Your task to perform on an android device: open app "Google News" Image 0: 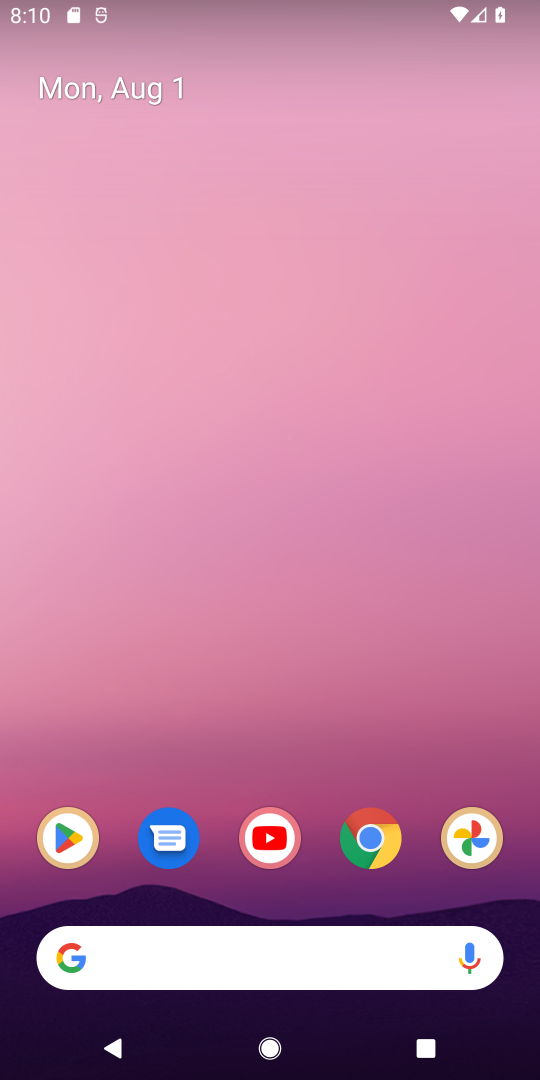
Step 0: press home button
Your task to perform on an android device: open app "Google News" Image 1: 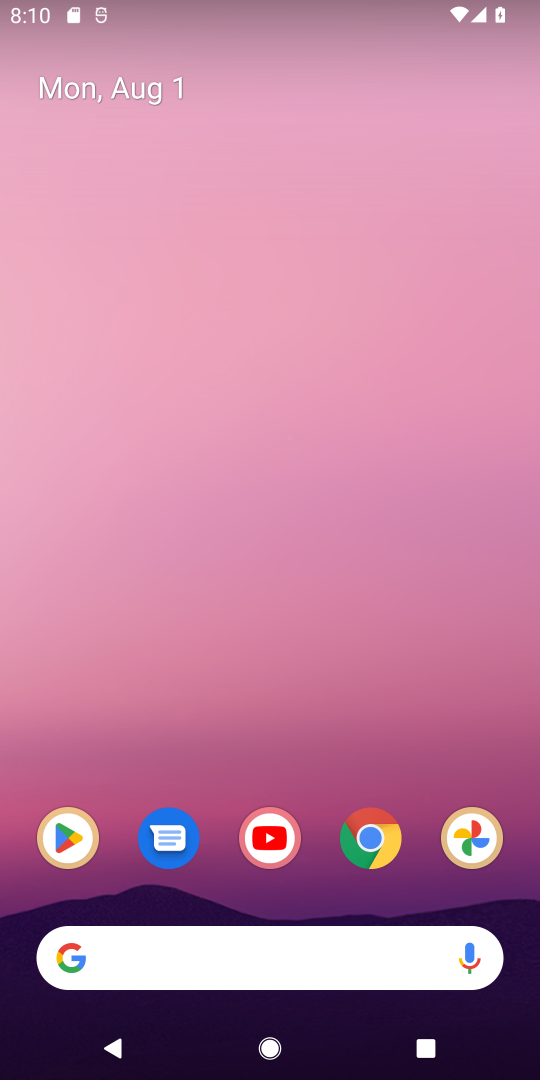
Step 1: click (68, 842)
Your task to perform on an android device: open app "Google News" Image 2: 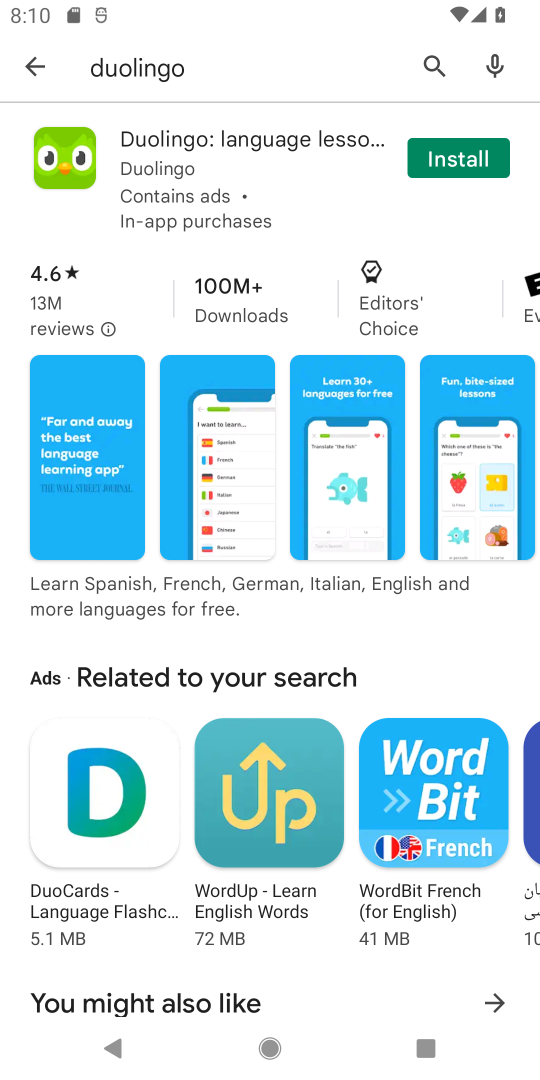
Step 2: click (435, 56)
Your task to perform on an android device: open app "Google News" Image 3: 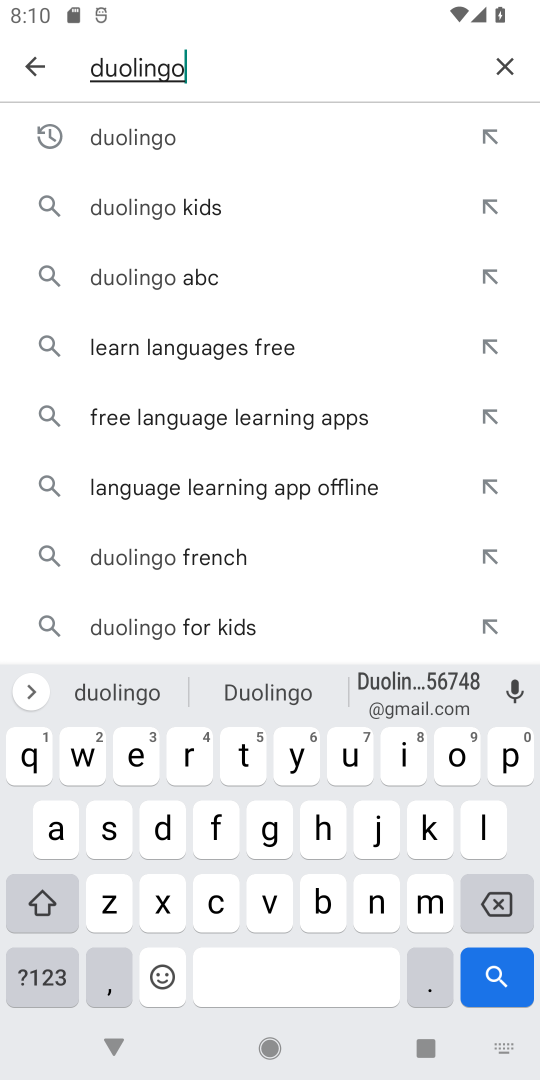
Step 3: click (492, 70)
Your task to perform on an android device: open app "Google News" Image 4: 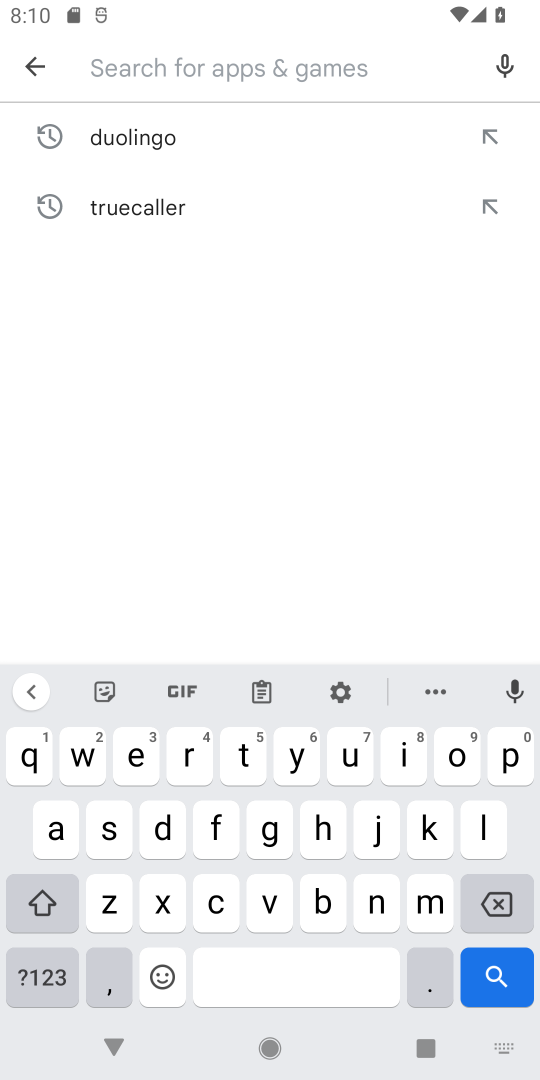
Step 4: type "google news"
Your task to perform on an android device: open app "Google News" Image 5: 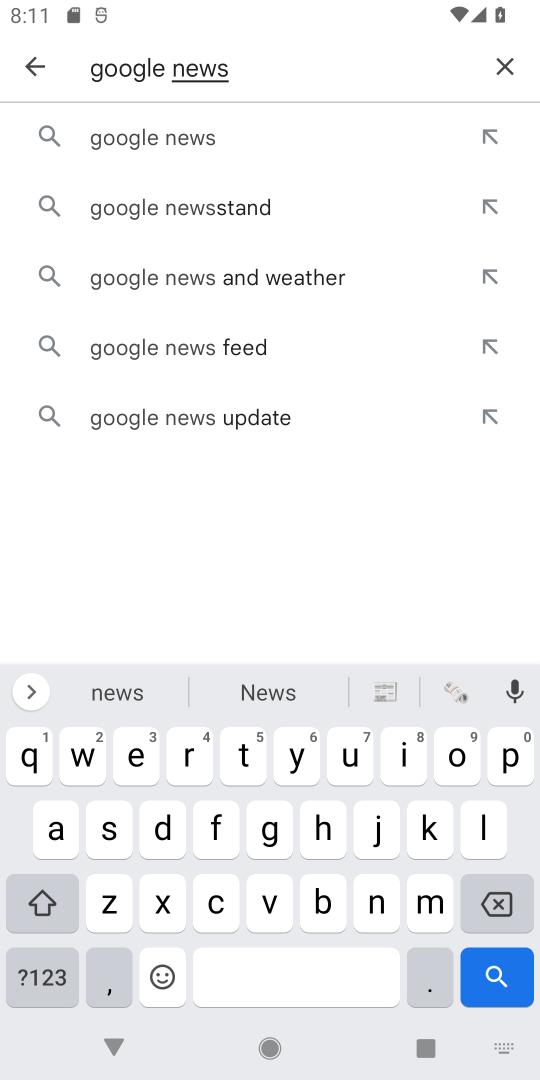
Step 5: click (483, 981)
Your task to perform on an android device: open app "Google News" Image 6: 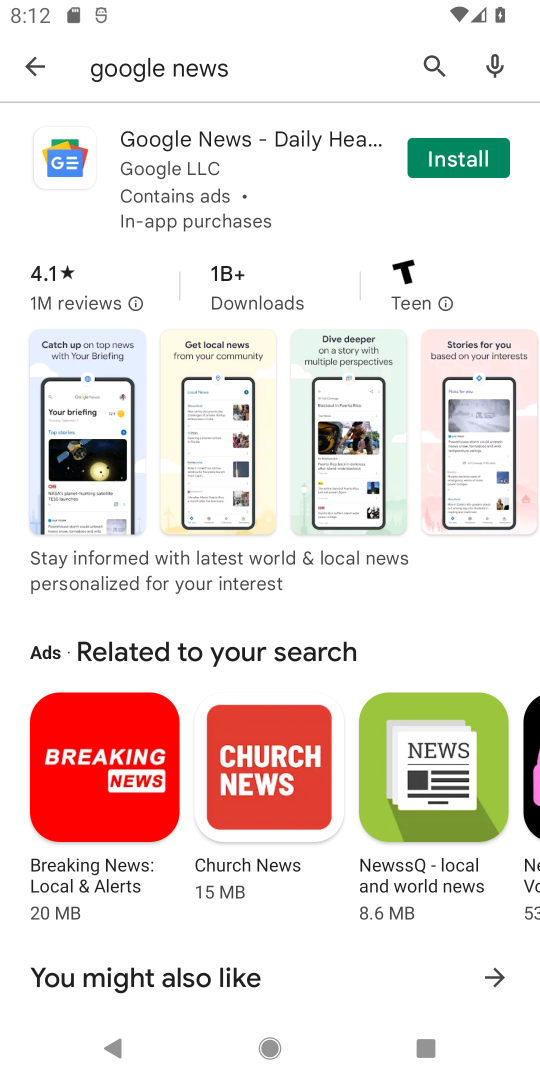
Step 6: task complete